Your task to perform on an android device: Turn off the flashlight Image 0: 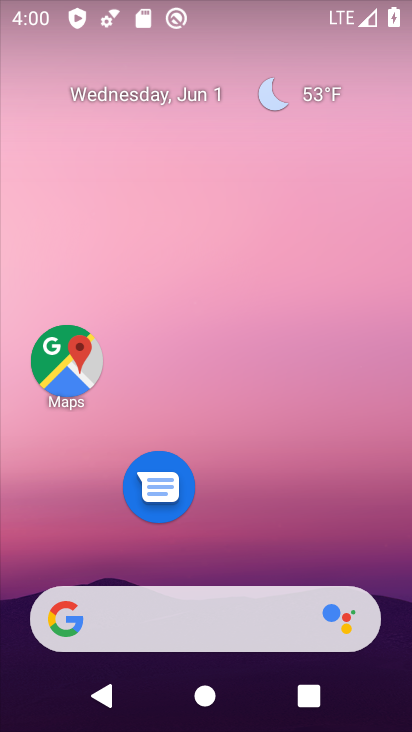
Step 0: drag from (257, 550) to (309, 155)
Your task to perform on an android device: Turn off the flashlight Image 1: 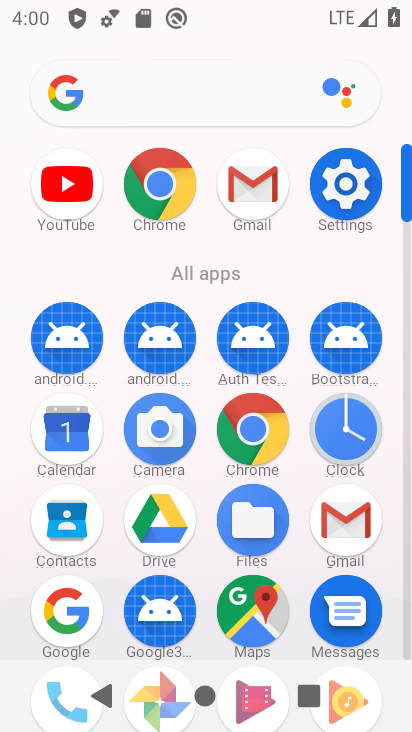
Step 1: click (362, 208)
Your task to perform on an android device: Turn off the flashlight Image 2: 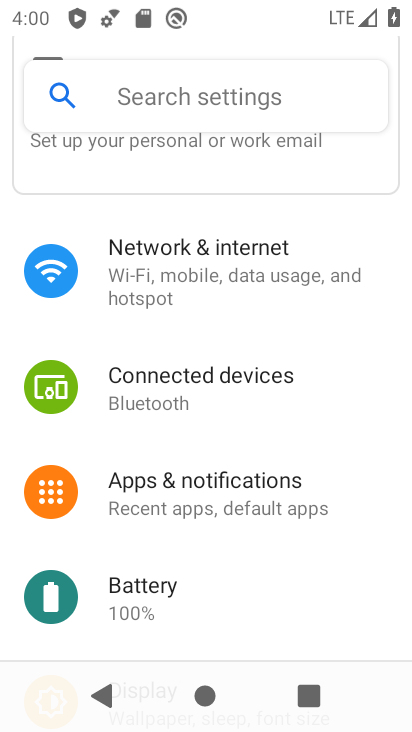
Step 2: click (236, 102)
Your task to perform on an android device: Turn off the flashlight Image 3: 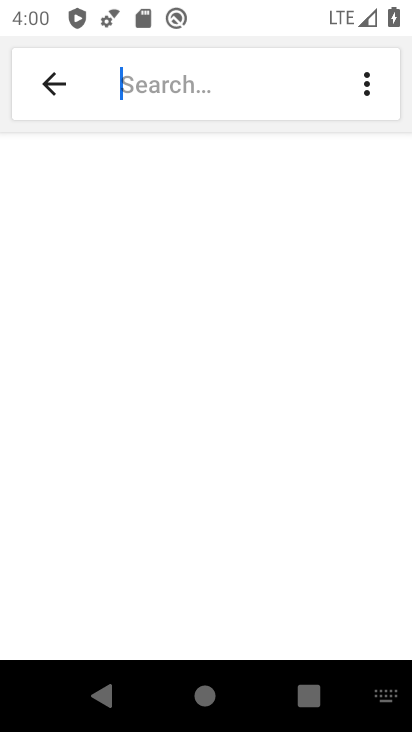
Step 3: type "flashlight"
Your task to perform on an android device: Turn off the flashlight Image 4: 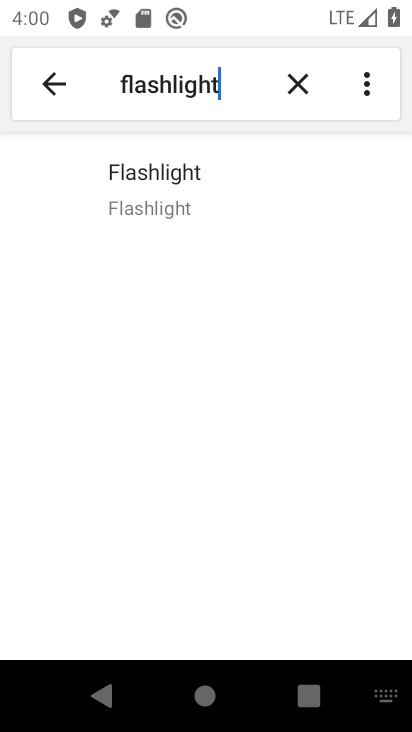
Step 4: click (174, 102)
Your task to perform on an android device: Turn off the flashlight Image 5: 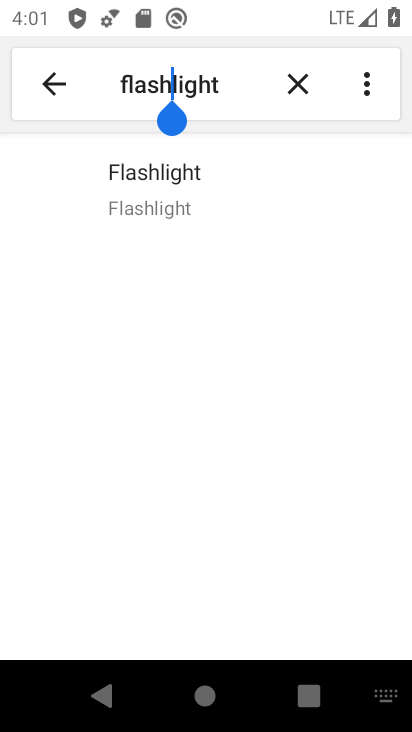
Step 5: click (152, 201)
Your task to perform on an android device: Turn off the flashlight Image 6: 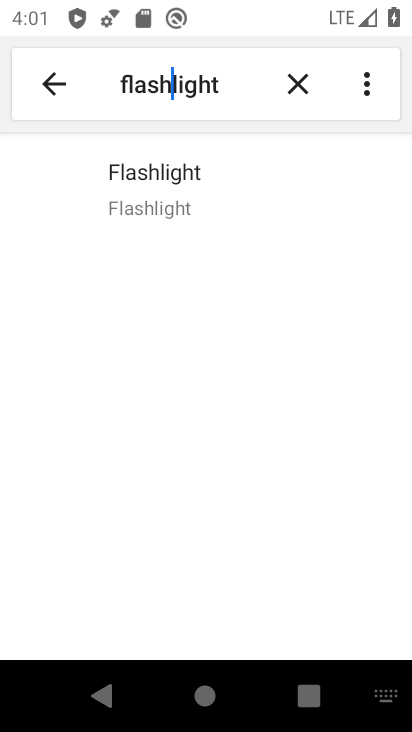
Step 6: click (153, 201)
Your task to perform on an android device: Turn off the flashlight Image 7: 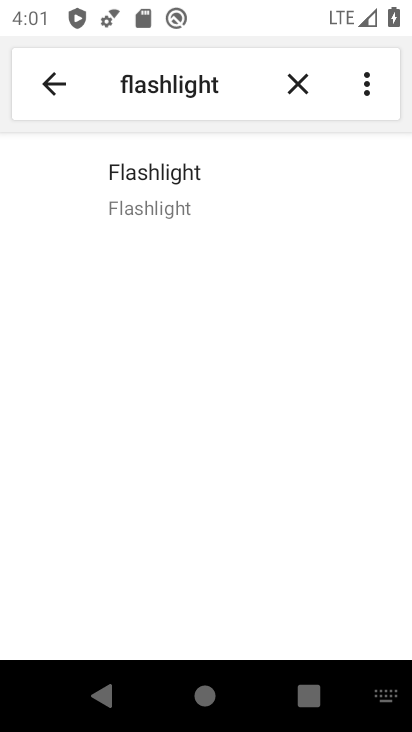
Step 7: click (153, 201)
Your task to perform on an android device: Turn off the flashlight Image 8: 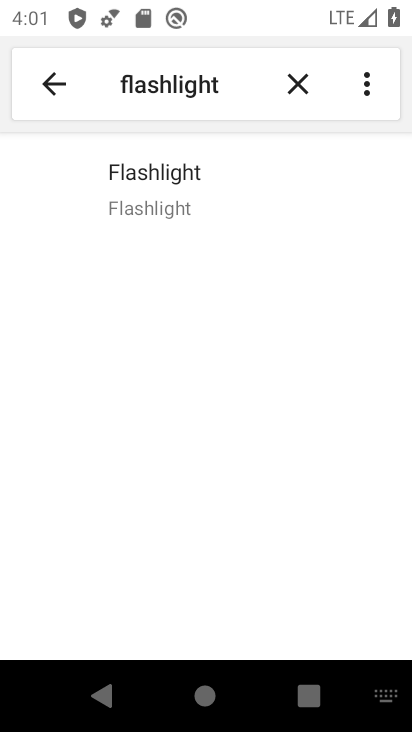
Step 8: task complete